Your task to perform on an android device: Turn on the flashlight Image 0: 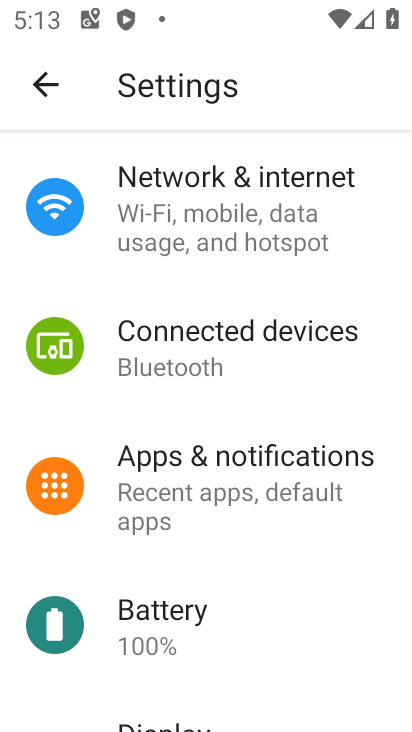
Step 0: drag from (234, 644) to (256, 398)
Your task to perform on an android device: Turn on the flashlight Image 1: 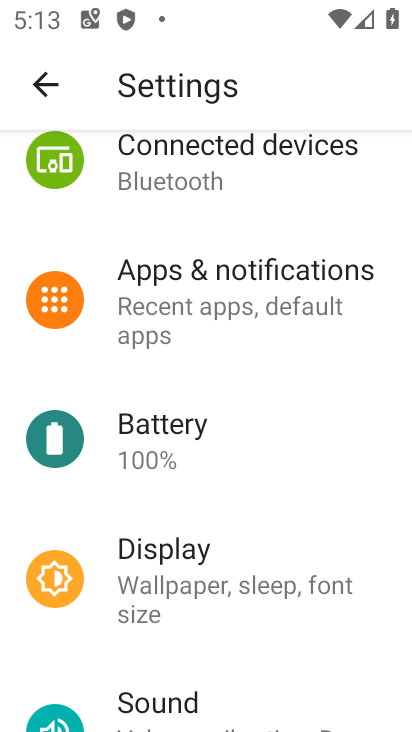
Step 1: click (166, 546)
Your task to perform on an android device: Turn on the flashlight Image 2: 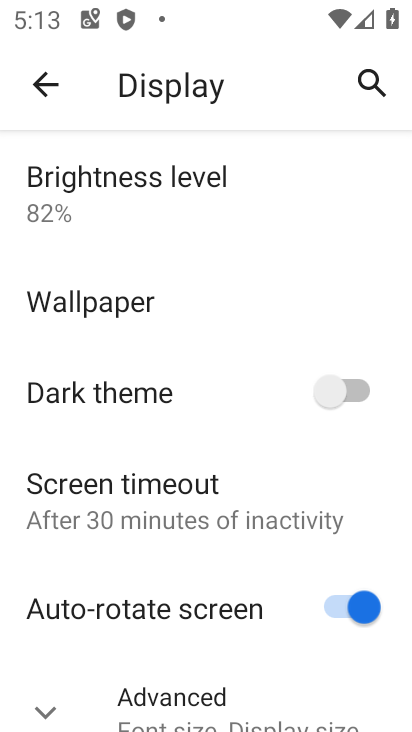
Step 2: task complete